Your task to perform on an android device: manage bookmarks in the chrome app Image 0: 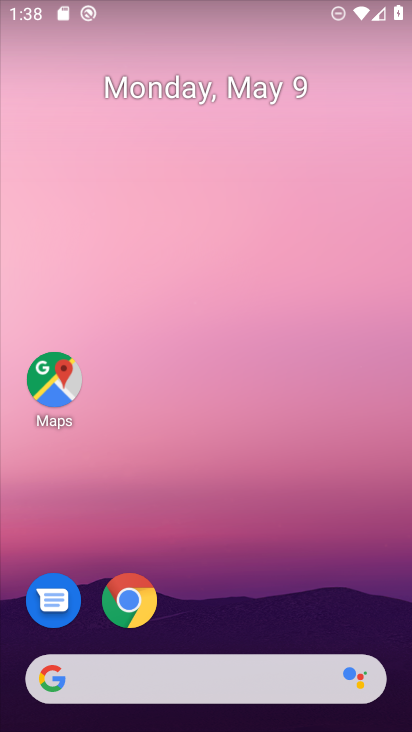
Step 0: drag from (154, 686) to (266, 196)
Your task to perform on an android device: manage bookmarks in the chrome app Image 1: 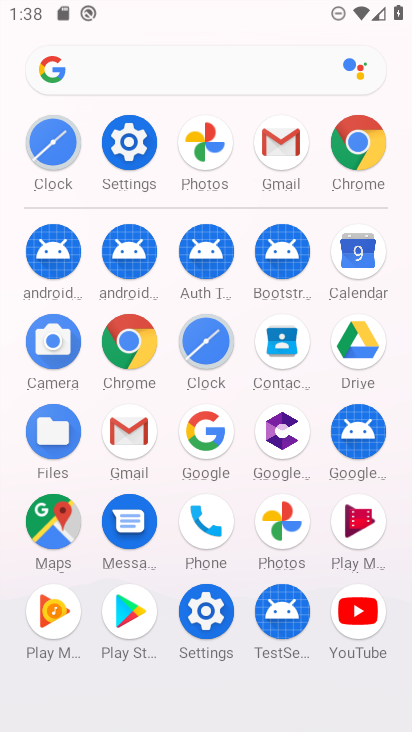
Step 1: click (366, 152)
Your task to perform on an android device: manage bookmarks in the chrome app Image 2: 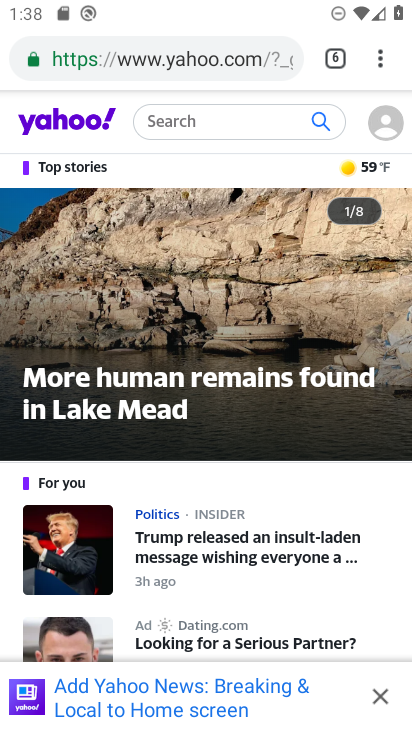
Step 2: drag from (376, 62) to (225, 219)
Your task to perform on an android device: manage bookmarks in the chrome app Image 3: 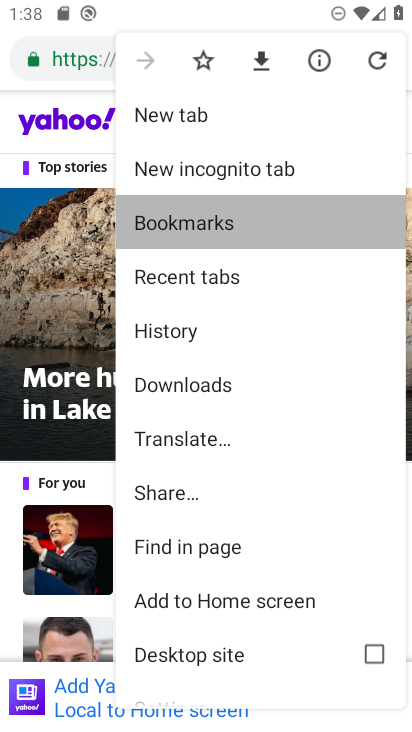
Step 3: click (225, 219)
Your task to perform on an android device: manage bookmarks in the chrome app Image 4: 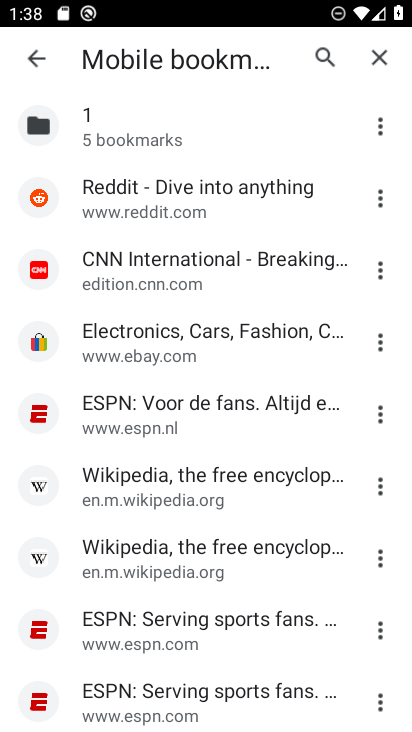
Step 4: click (379, 204)
Your task to perform on an android device: manage bookmarks in the chrome app Image 5: 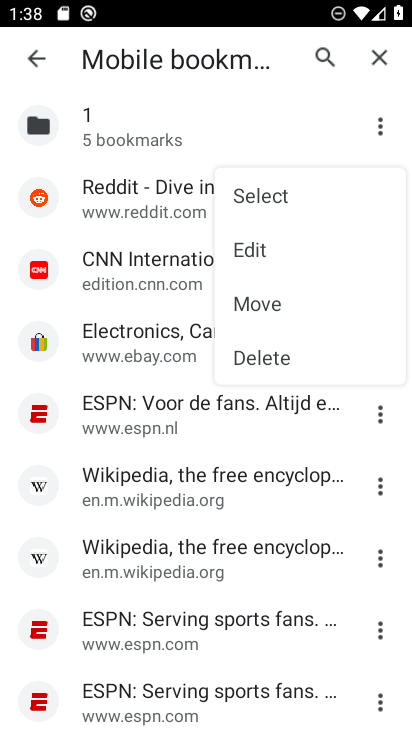
Step 5: click (276, 303)
Your task to perform on an android device: manage bookmarks in the chrome app Image 6: 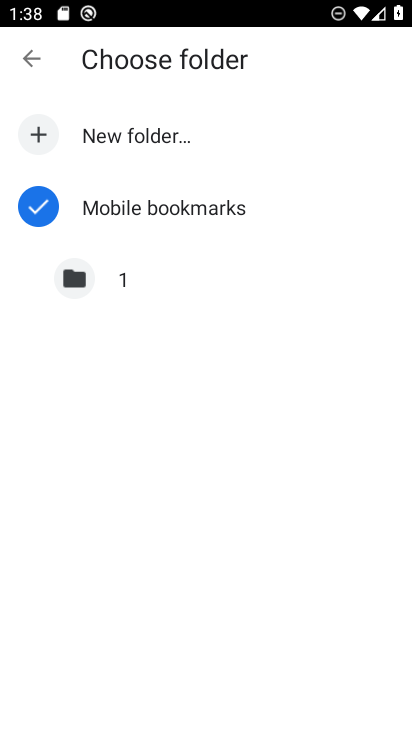
Step 6: click (80, 277)
Your task to perform on an android device: manage bookmarks in the chrome app Image 7: 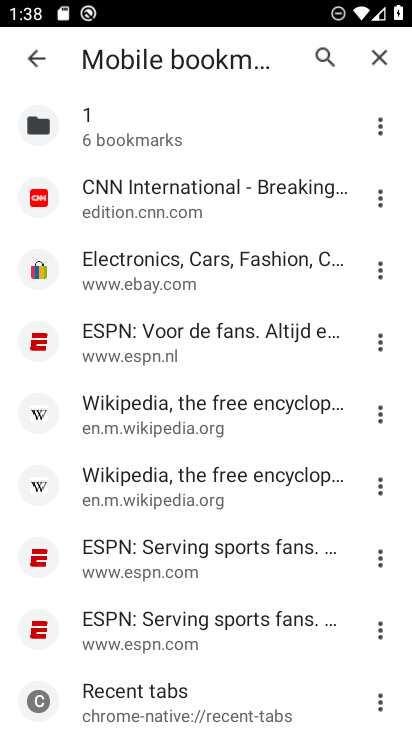
Step 7: task complete